Your task to perform on an android device: Open accessibility settings Image 0: 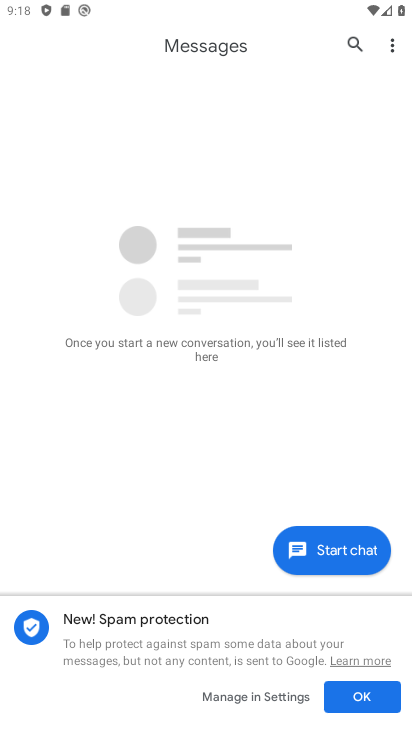
Step 0: press home button
Your task to perform on an android device: Open accessibility settings Image 1: 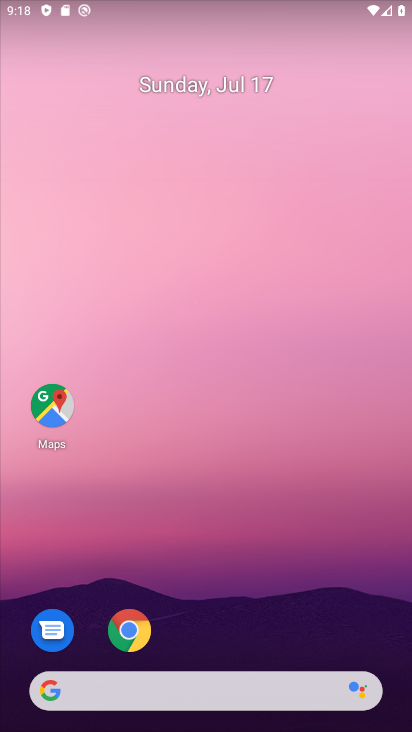
Step 1: drag from (283, 607) to (316, 43)
Your task to perform on an android device: Open accessibility settings Image 2: 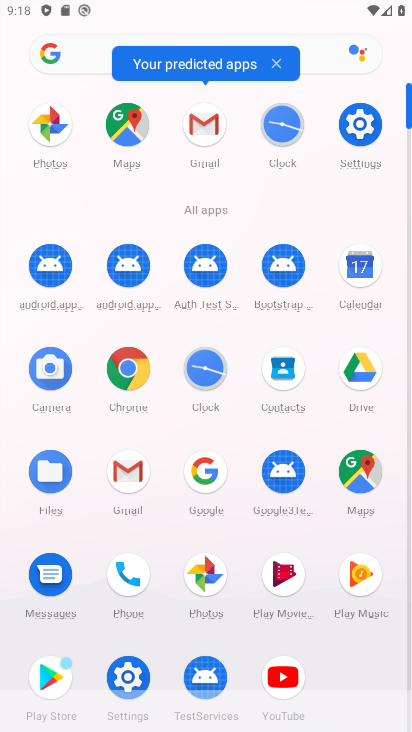
Step 2: click (356, 115)
Your task to perform on an android device: Open accessibility settings Image 3: 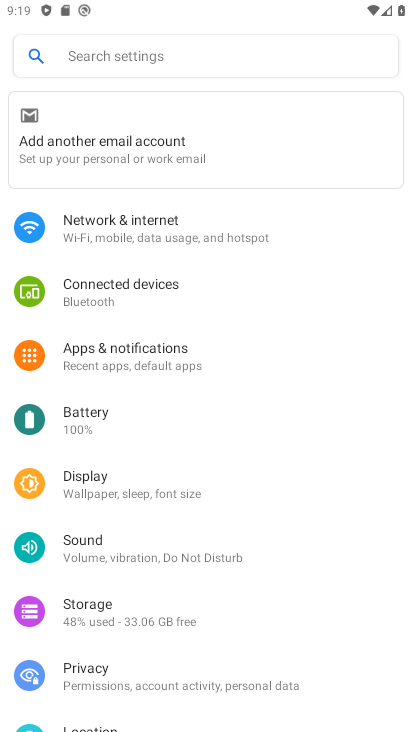
Step 3: drag from (200, 659) to (243, 247)
Your task to perform on an android device: Open accessibility settings Image 4: 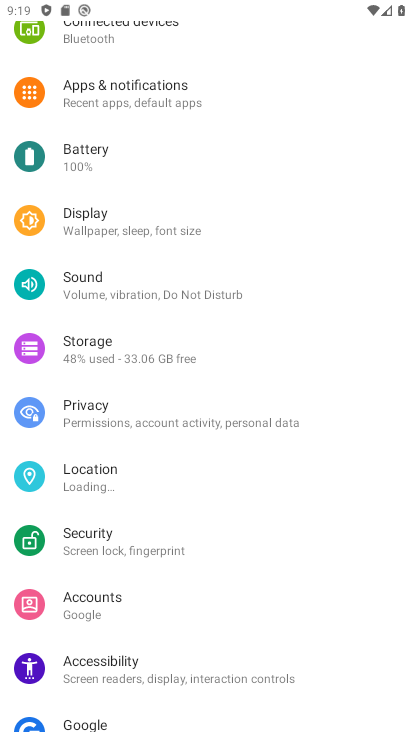
Step 4: click (119, 658)
Your task to perform on an android device: Open accessibility settings Image 5: 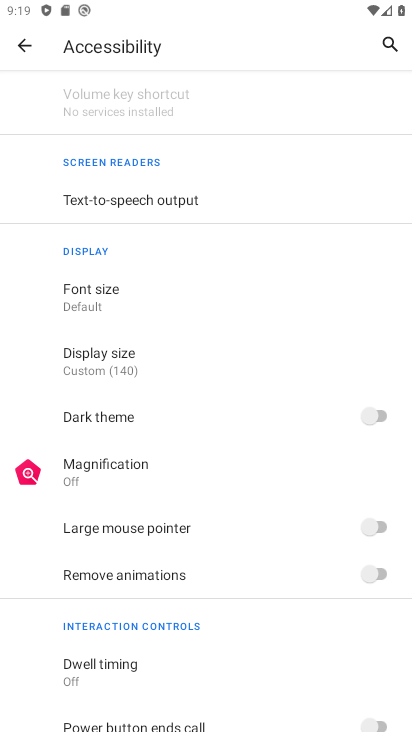
Step 5: task complete